Your task to perform on an android device: Go to accessibility settings Image 0: 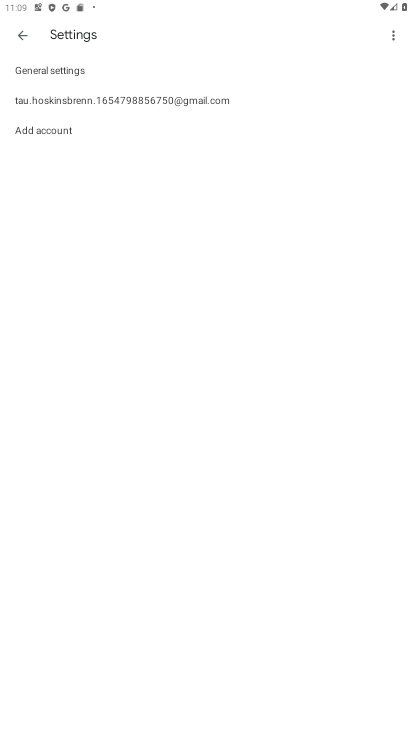
Step 0: press home button
Your task to perform on an android device: Go to accessibility settings Image 1: 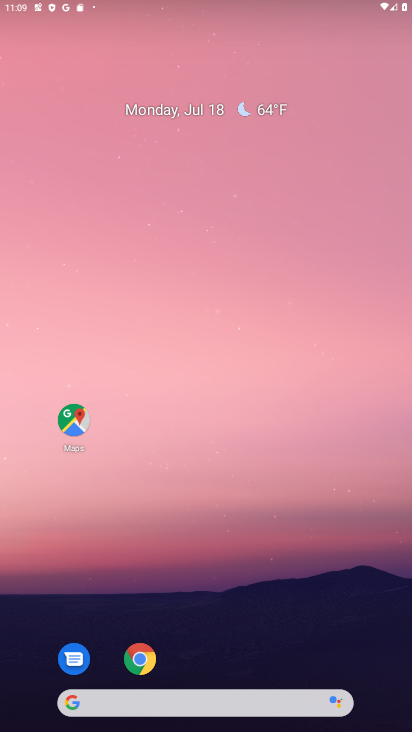
Step 1: drag from (184, 619) to (163, 146)
Your task to perform on an android device: Go to accessibility settings Image 2: 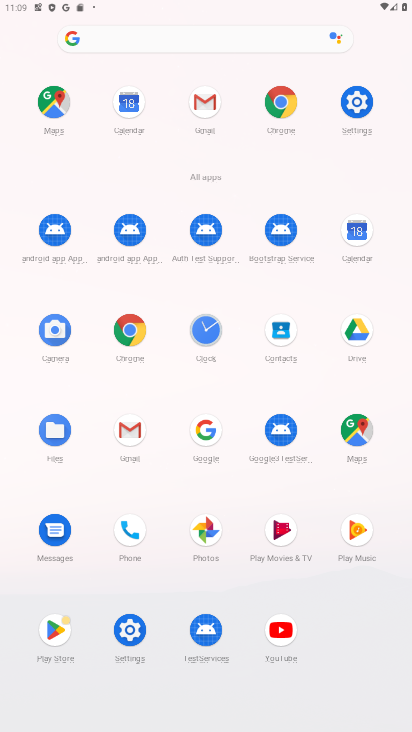
Step 2: click (348, 98)
Your task to perform on an android device: Go to accessibility settings Image 3: 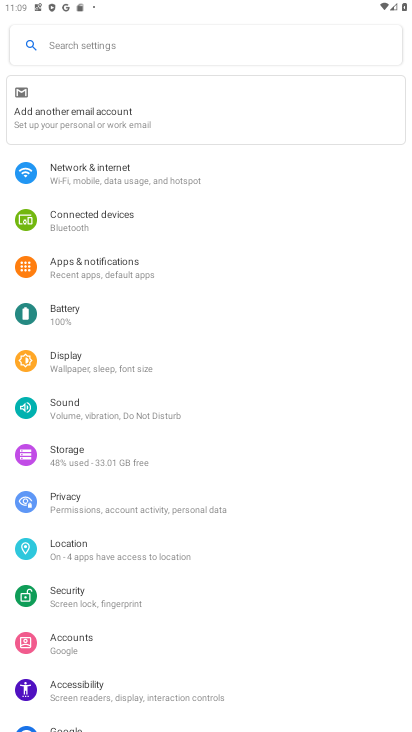
Step 3: click (78, 685)
Your task to perform on an android device: Go to accessibility settings Image 4: 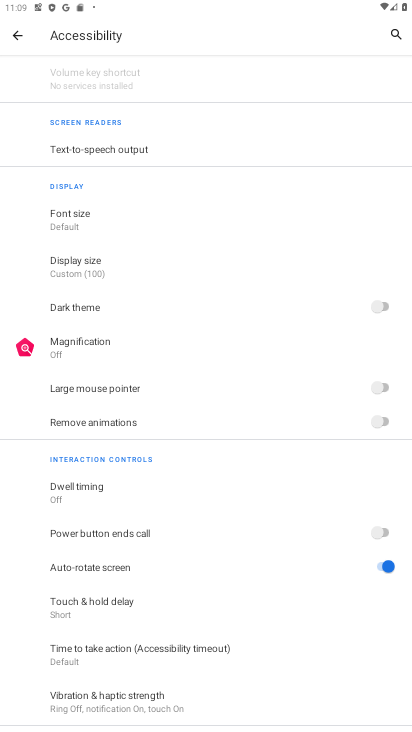
Step 4: task complete